Your task to perform on an android device: When is my next meeting? Image 0: 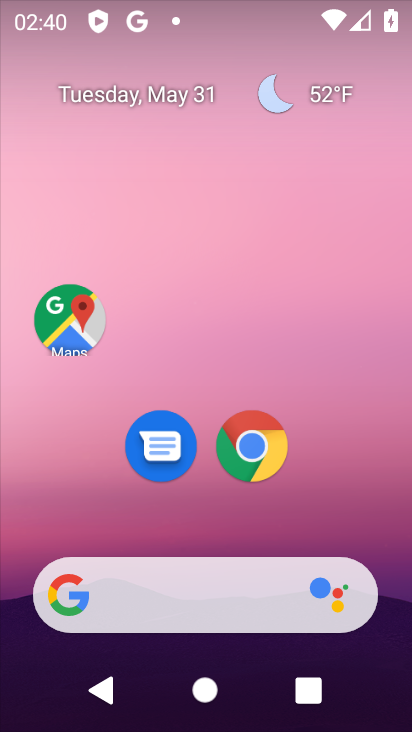
Step 0: drag from (310, 513) to (264, 156)
Your task to perform on an android device: When is my next meeting? Image 1: 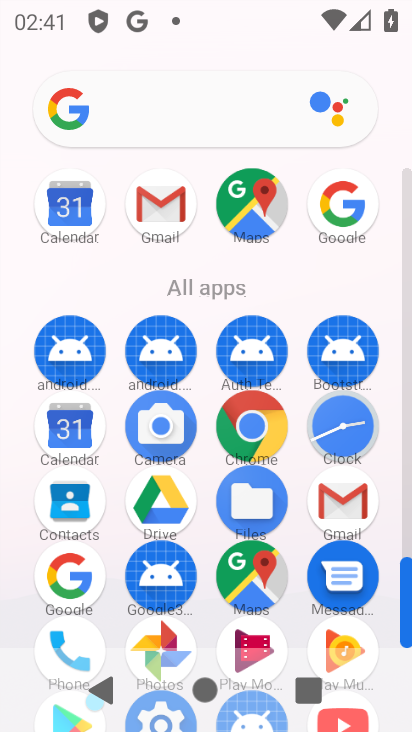
Step 1: click (72, 429)
Your task to perform on an android device: When is my next meeting? Image 2: 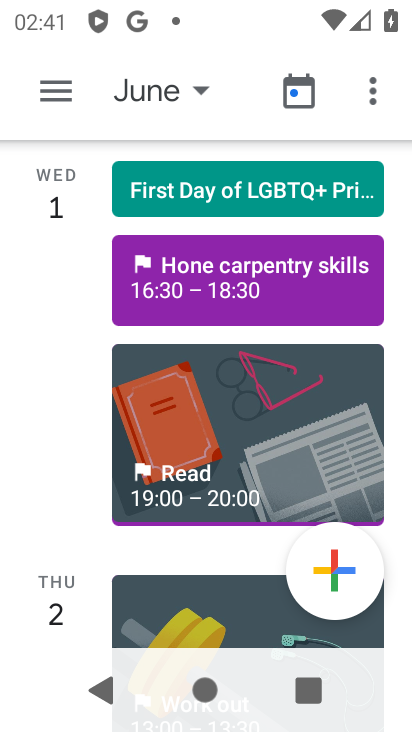
Step 2: click (305, 97)
Your task to perform on an android device: When is my next meeting? Image 3: 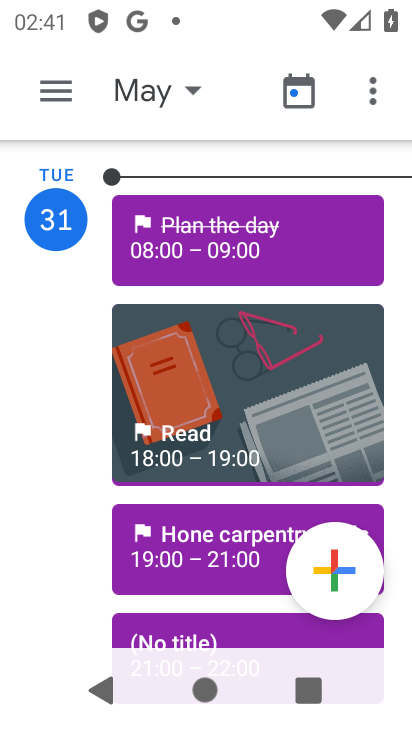
Step 3: click (194, 88)
Your task to perform on an android device: When is my next meeting? Image 4: 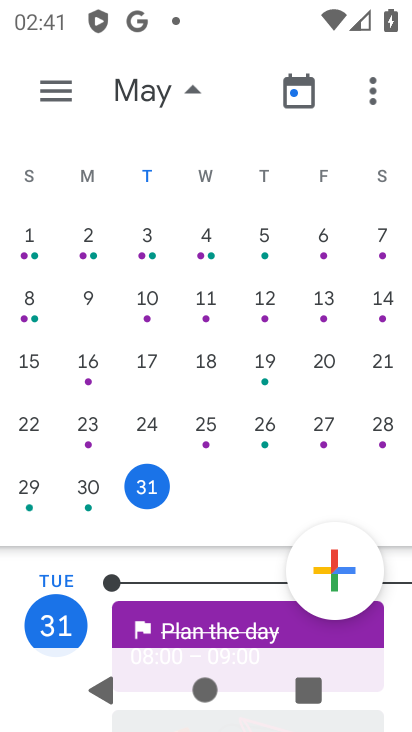
Step 4: drag from (325, 466) to (21, 431)
Your task to perform on an android device: When is my next meeting? Image 5: 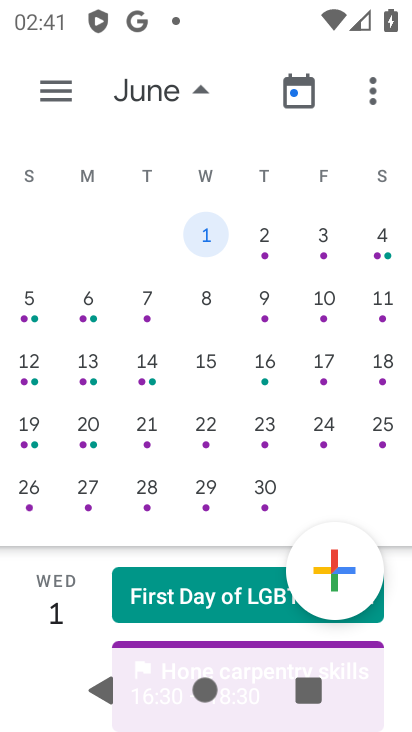
Step 5: click (57, 89)
Your task to perform on an android device: When is my next meeting? Image 6: 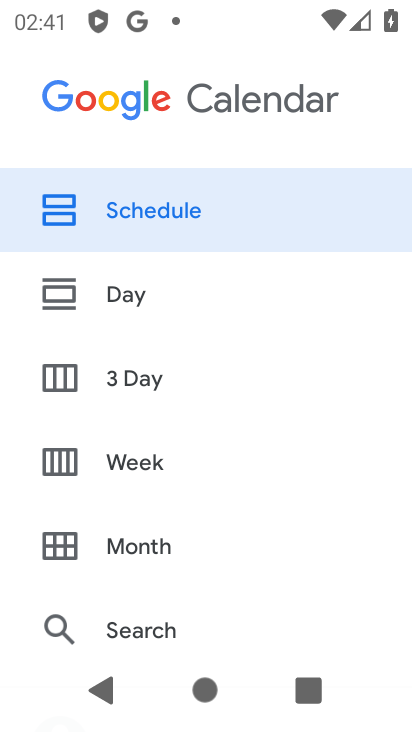
Step 6: click (138, 228)
Your task to perform on an android device: When is my next meeting? Image 7: 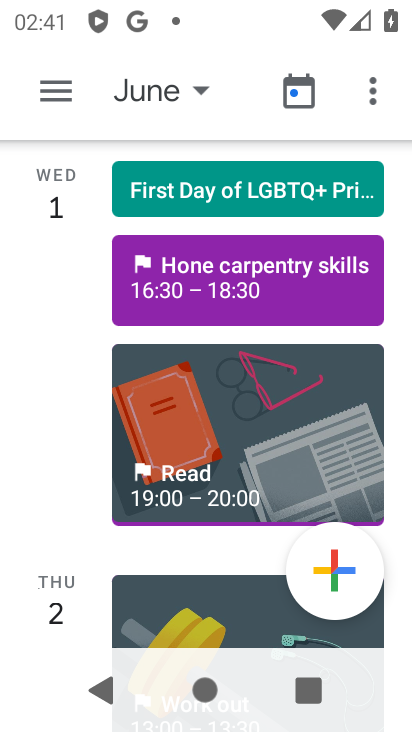
Step 7: task complete